Your task to perform on an android device: Go to network settings Image 0: 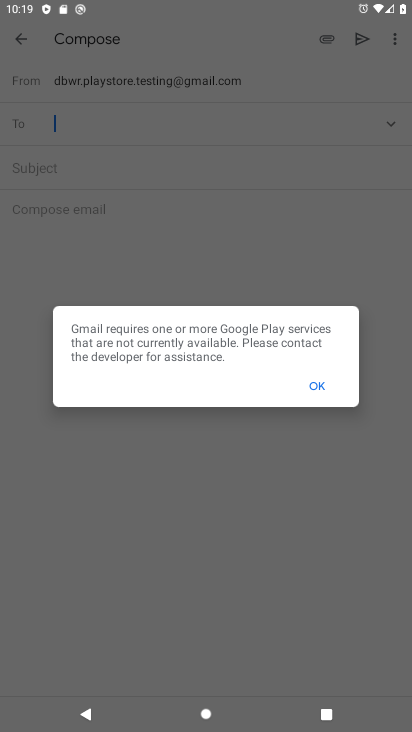
Step 0: press back button
Your task to perform on an android device: Go to network settings Image 1: 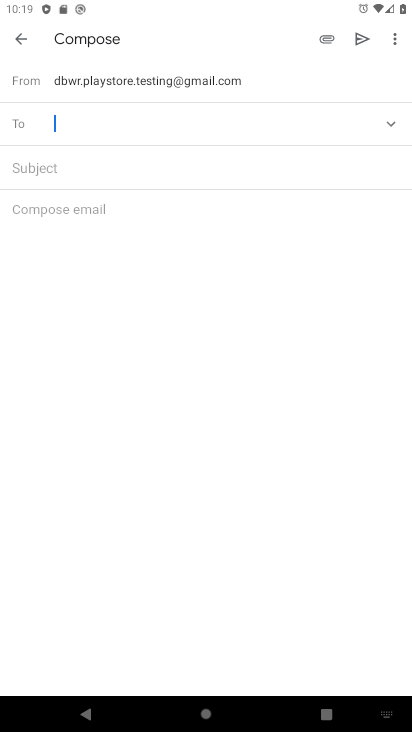
Step 1: press back button
Your task to perform on an android device: Go to network settings Image 2: 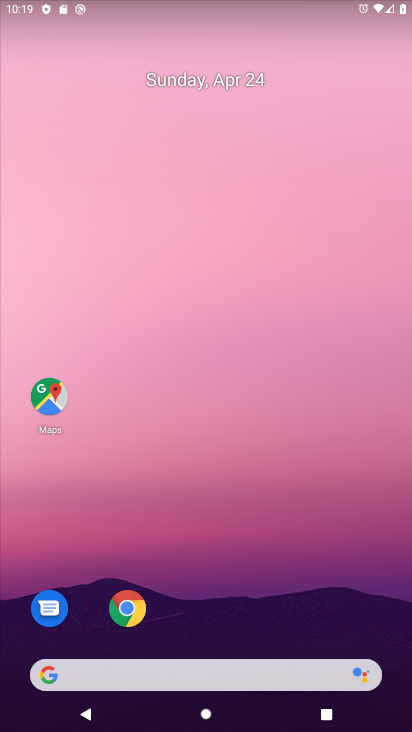
Step 2: drag from (214, 486) to (91, 10)
Your task to perform on an android device: Go to network settings Image 3: 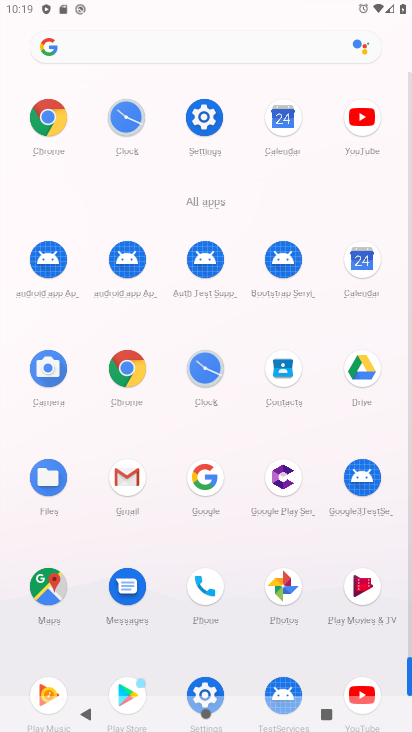
Step 3: drag from (7, 534) to (3, 263)
Your task to perform on an android device: Go to network settings Image 4: 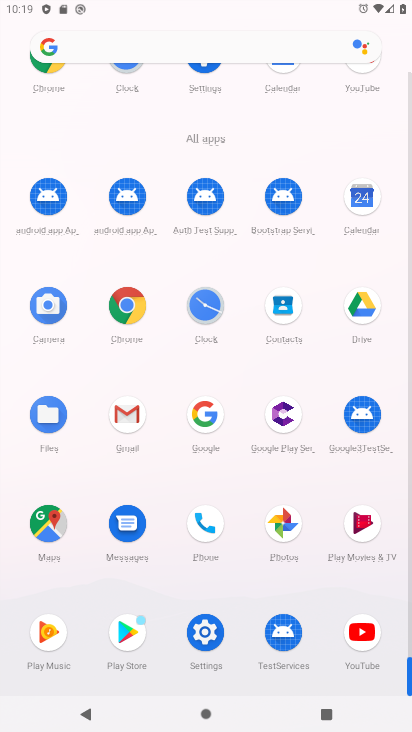
Step 4: click (208, 629)
Your task to perform on an android device: Go to network settings Image 5: 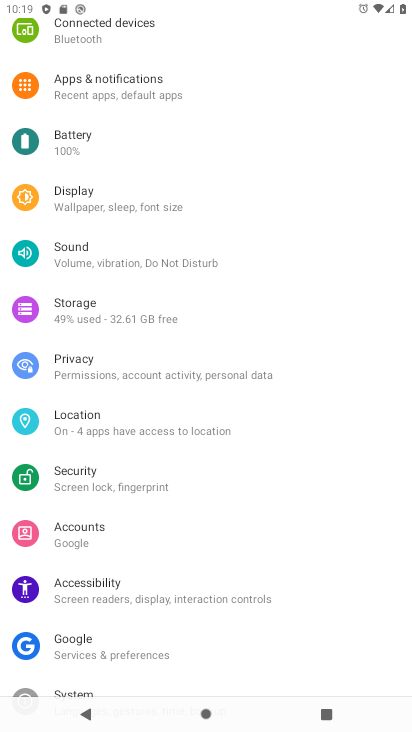
Step 5: drag from (230, 572) to (229, 118)
Your task to perform on an android device: Go to network settings Image 6: 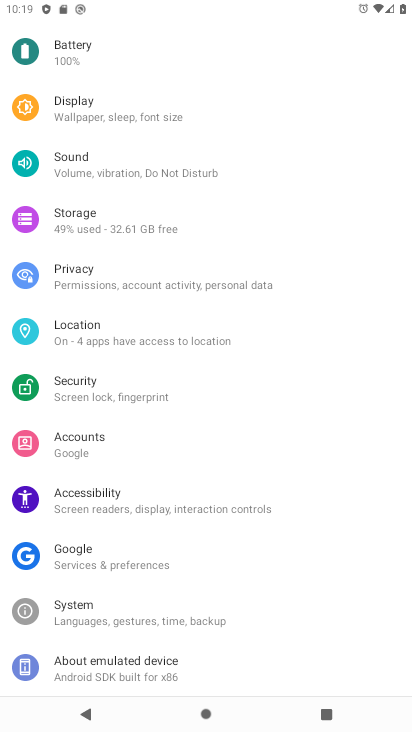
Step 6: drag from (224, 139) to (217, 613)
Your task to perform on an android device: Go to network settings Image 7: 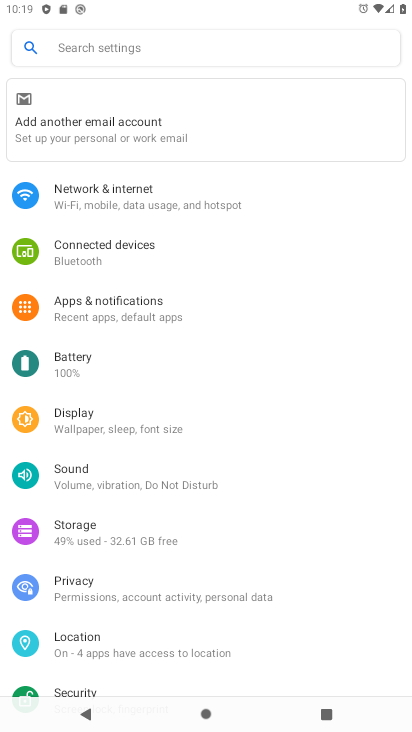
Step 7: click (184, 197)
Your task to perform on an android device: Go to network settings Image 8: 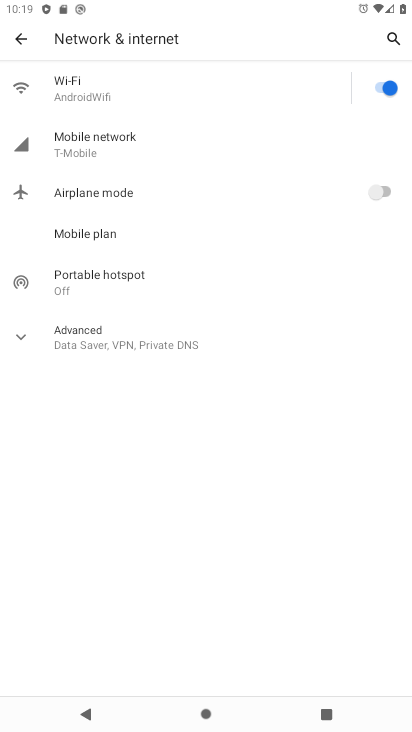
Step 8: click (14, 329)
Your task to perform on an android device: Go to network settings Image 9: 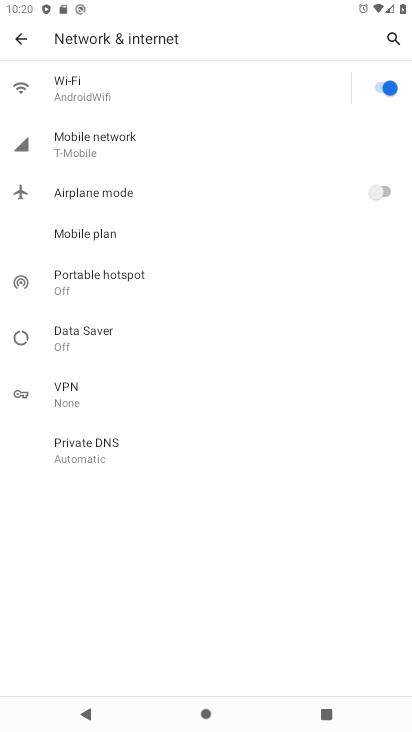
Step 9: task complete